Your task to perform on an android device: stop showing notifications on the lock screen Image 0: 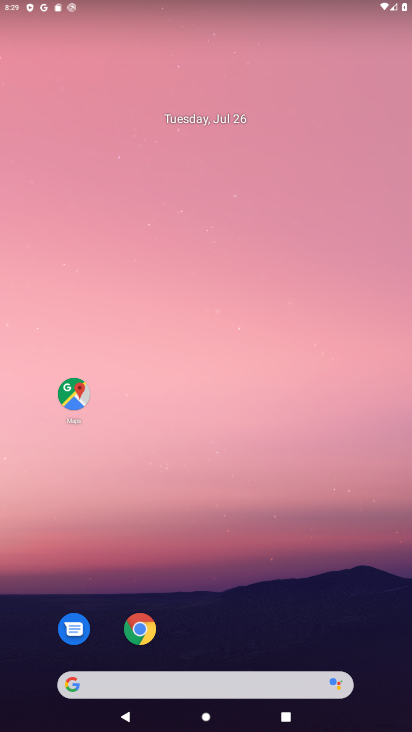
Step 0: press home button
Your task to perform on an android device: stop showing notifications on the lock screen Image 1: 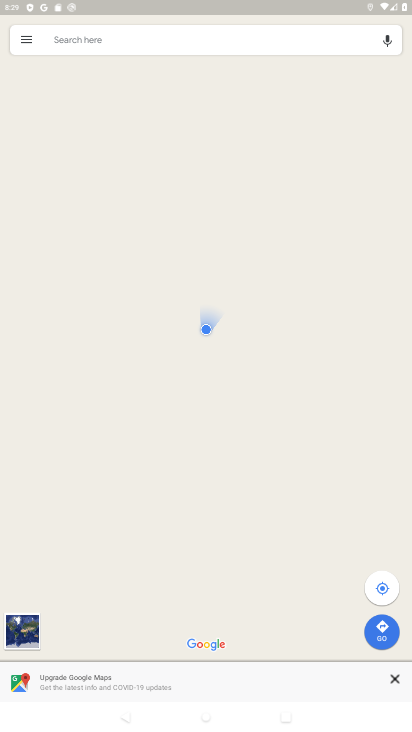
Step 1: click (282, 185)
Your task to perform on an android device: stop showing notifications on the lock screen Image 2: 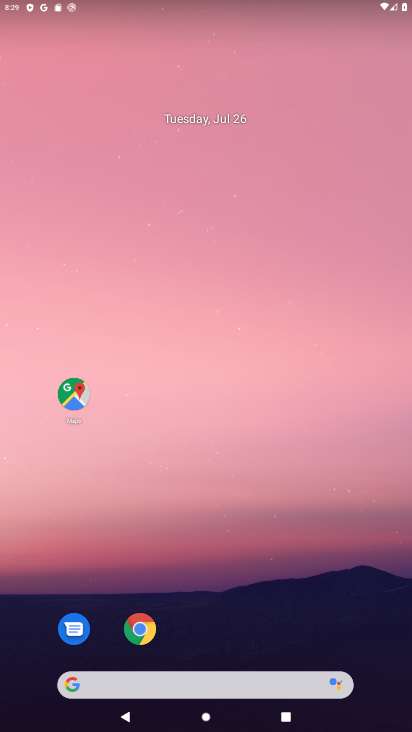
Step 2: drag from (324, 635) to (315, 196)
Your task to perform on an android device: stop showing notifications on the lock screen Image 3: 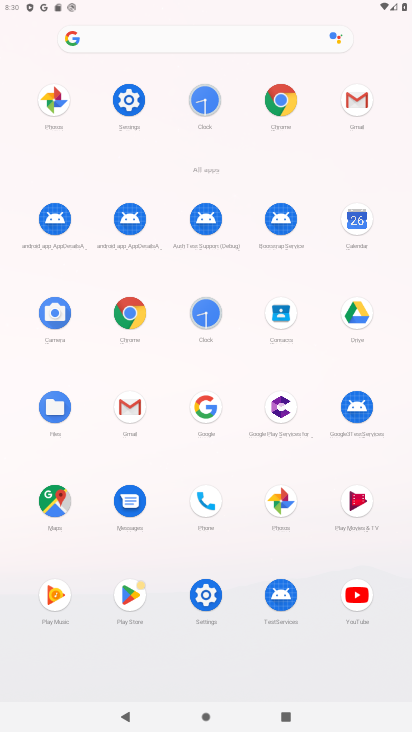
Step 3: click (198, 599)
Your task to perform on an android device: stop showing notifications on the lock screen Image 4: 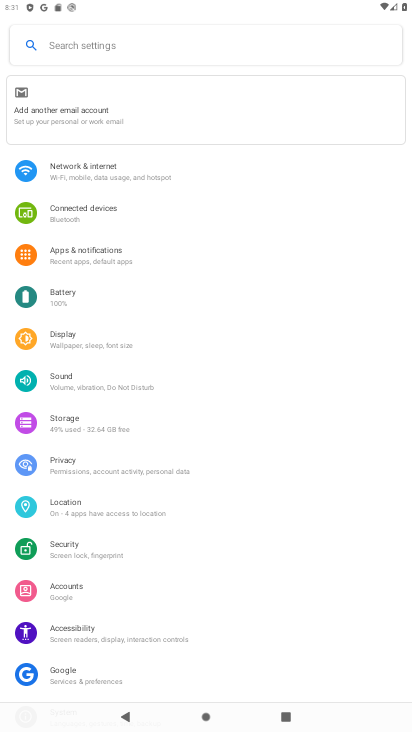
Step 4: click (66, 248)
Your task to perform on an android device: stop showing notifications on the lock screen Image 5: 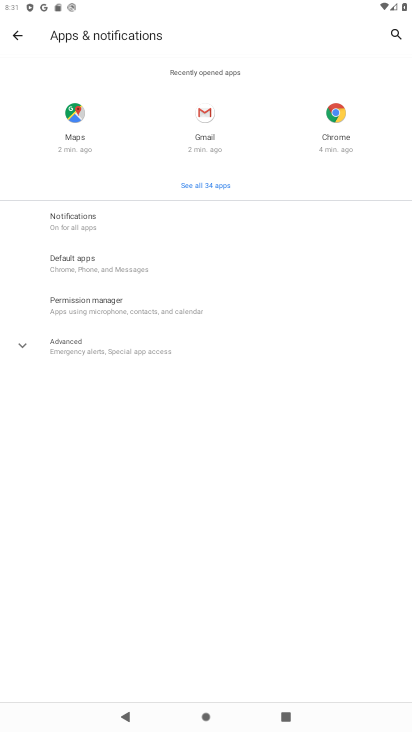
Step 5: click (88, 205)
Your task to perform on an android device: stop showing notifications on the lock screen Image 6: 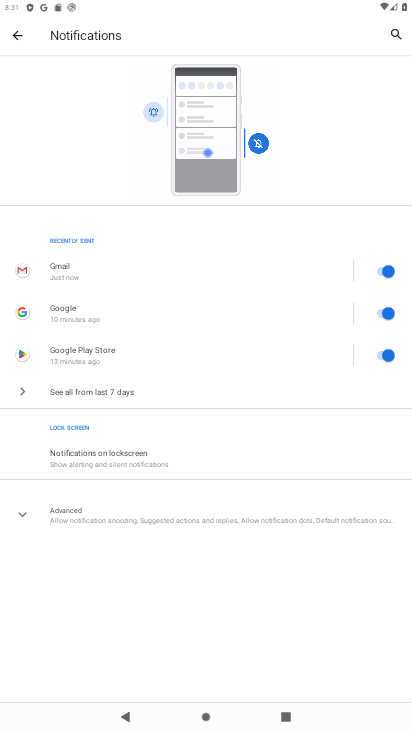
Step 6: click (74, 454)
Your task to perform on an android device: stop showing notifications on the lock screen Image 7: 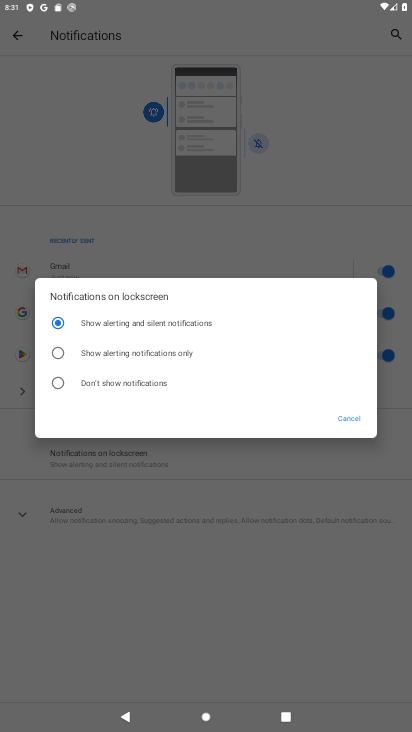
Step 7: click (75, 385)
Your task to perform on an android device: stop showing notifications on the lock screen Image 8: 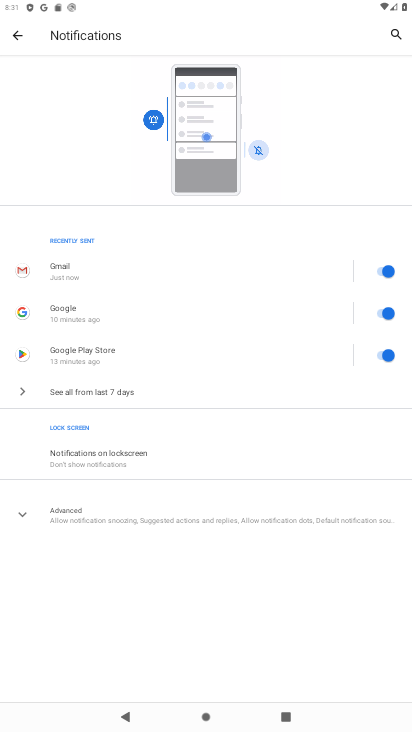
Step 8: task complete